Your task to perform on an android device: Search for vegetarian restaurants on Maps Image 0: 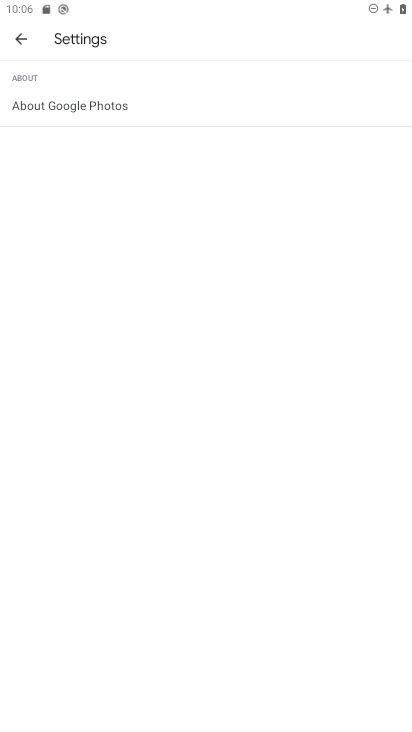
Step 0: press home button
Your task to perform on an android device: Search for vegetarian restaurants on Maps Image 1: 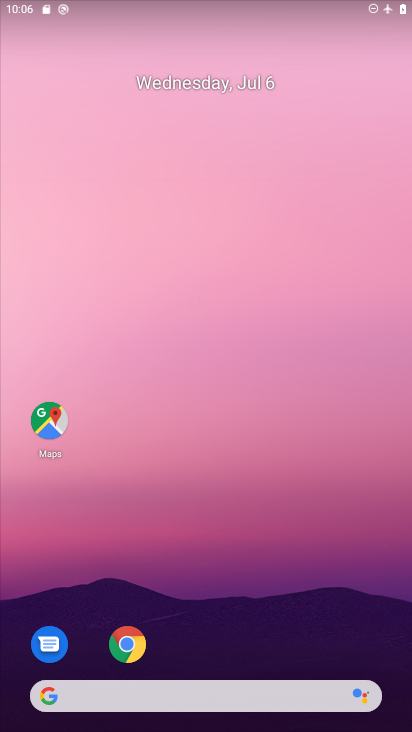
Step 1: click (37, 433)
Your task to perform on an android device: Search for vegetarian restaurants on Maps Image 2: 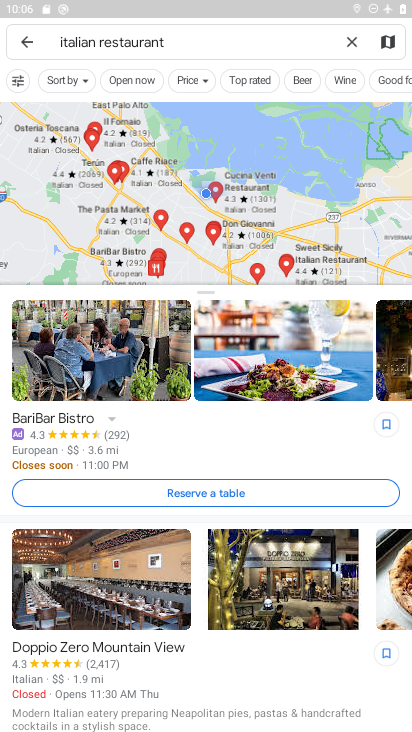
Step 2: click (346, 44)
Your task to perform on an android device: Search for vegetarian restaurants on Maps Image 3: 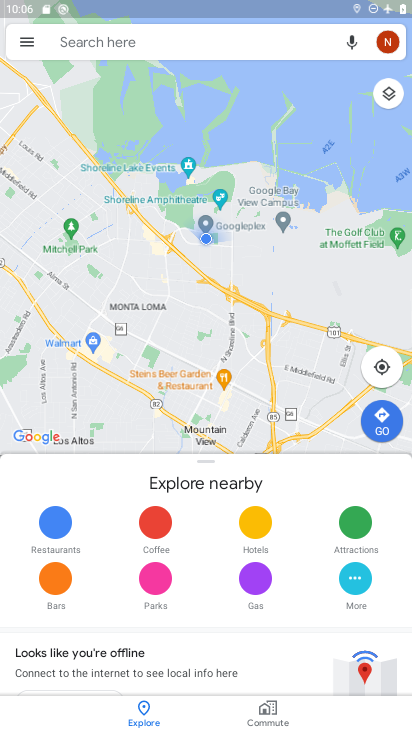
Step 3: click (134, 43)
Your task to perform on an android device: Search for vegetarian restaurants on Maps Image 4: 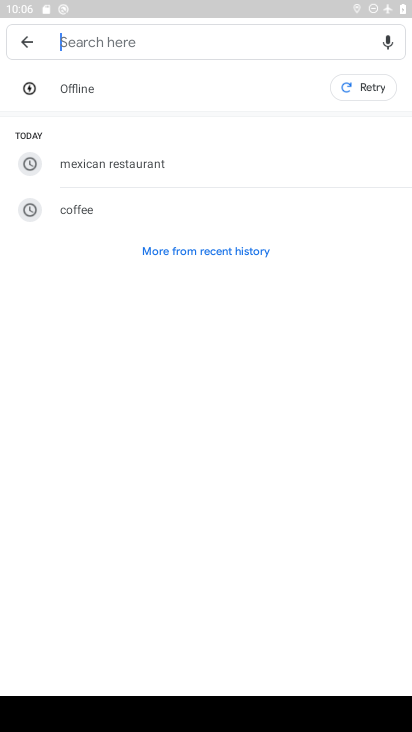
Step 4: type "vegetarian restaurants"
Your task to perform on an android device: Search for vegetarian restaurants on Maps Image 5: 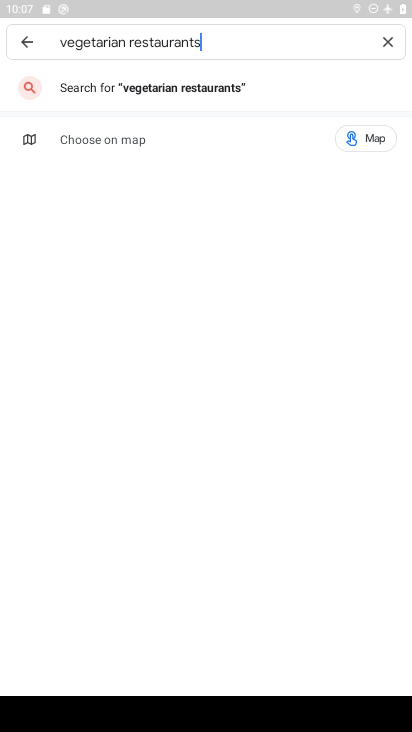
Step 5: task complete